Your task to perform on an android device: Open Yahoo.com Image 0: 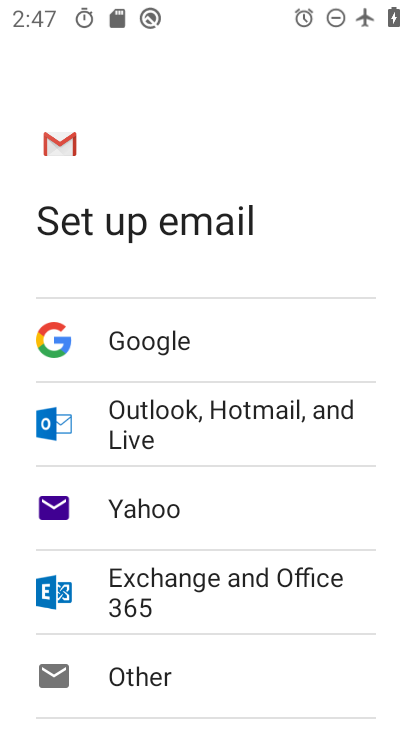
Step 0: press home button
Your task to perform on an android device: Open Yahoo.com Image 1: 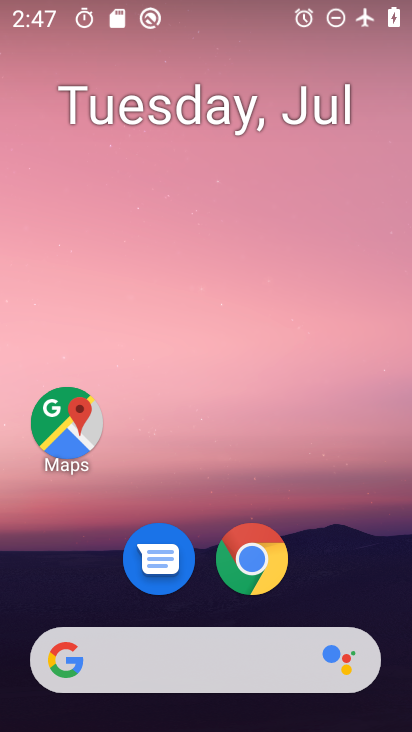
Step 1: drag from (372, 567) to (366, 216)
Your task to perform on an android device: Open Yahoo.com Image 2: 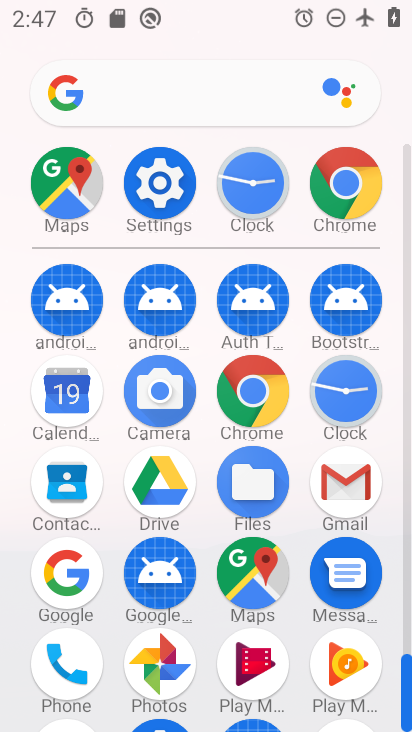
Step 2: click (256, 384)
Your task to perform on an android device: Open Yahoo.com Image 3: 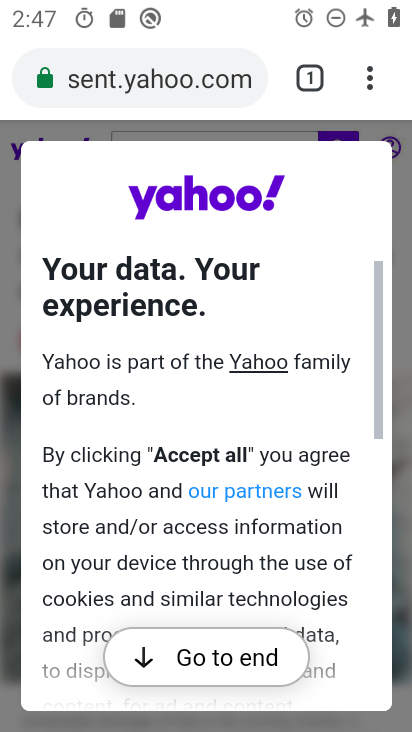
Step 3: task complete